Your task to perform on an android device: turn smart compose on in the gmail app Image 0: 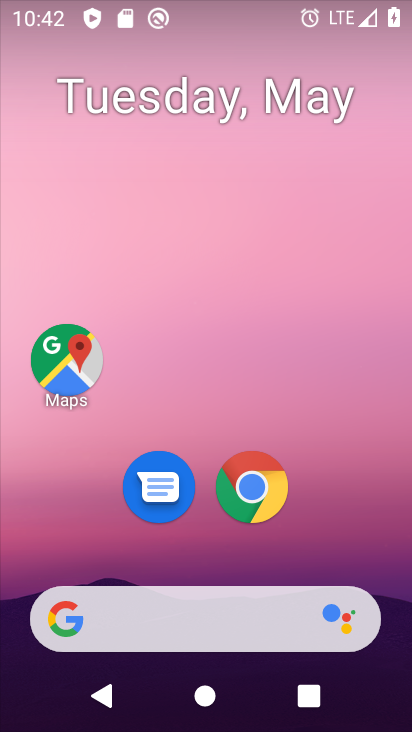
Step 0: drag from (215, 570) to (272, 324)
Your task to perform on an android device: turn smart compose on in the gmail app Image 1: 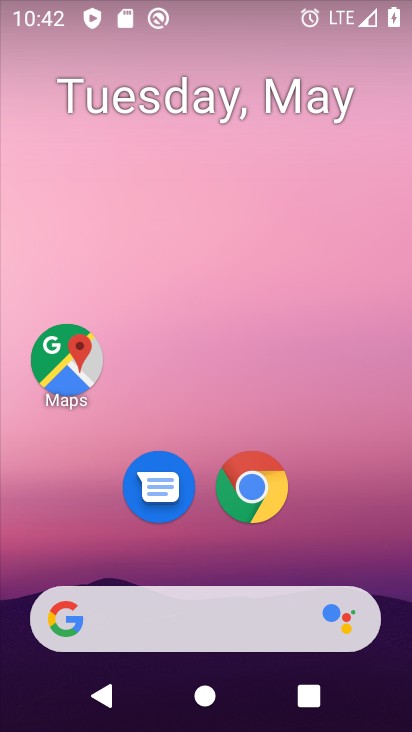
Step 1: drag from (223, 546) to (313, 160)
Your task to perform on an android device: turn smart compose on in the gmail app Image 2: 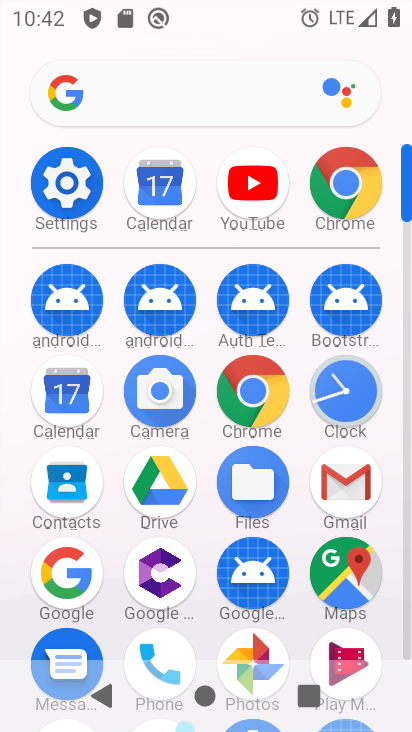
Step 2: click (320, 480)
Your task to perform on an android device: turn smart compose on in the gmail app Image 3: 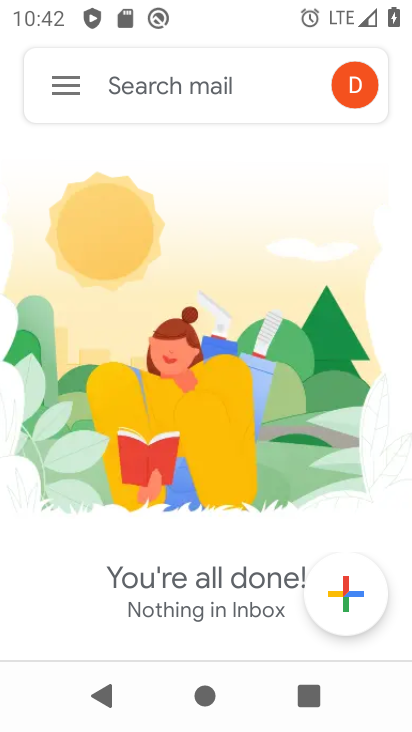
Step 3: click (62, 82)
Your task to perform on an android device: turn smart compose on in the gmail app Image 4: 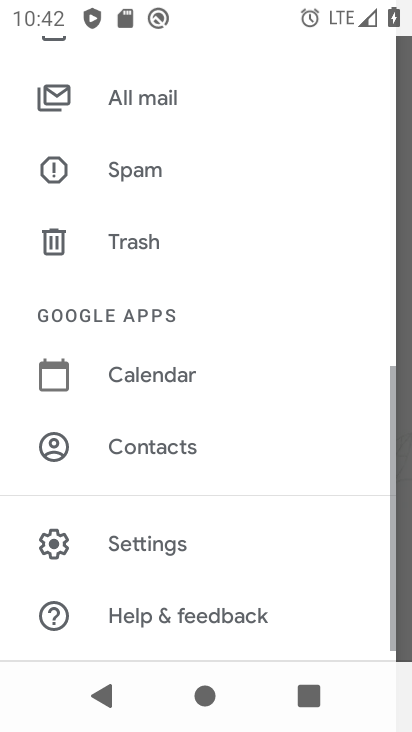
Step 4: drag from (127, 594) to (269, 66)
Your task to perform on an android device: turn smart compose on in the gmail app Image 5: 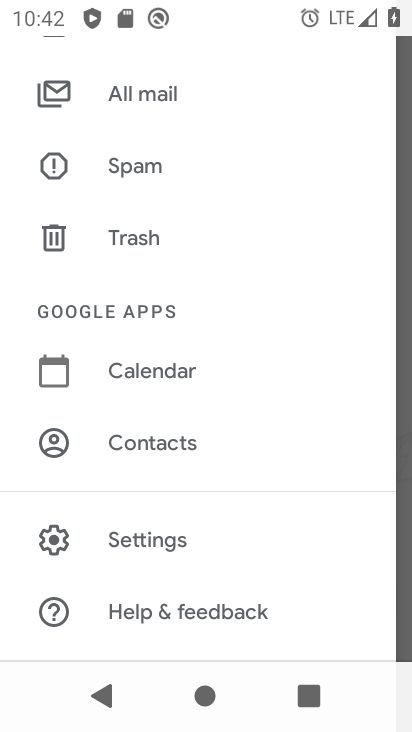
Step 5: click (163, 540)
Your task to perform on an android device: turn smart compose on in the gmail app Image 6: 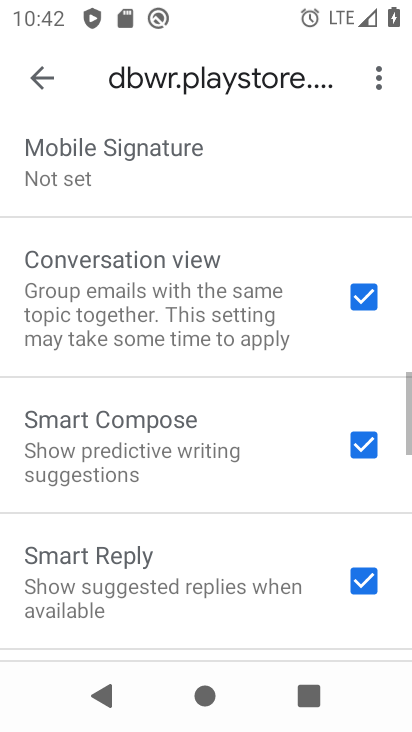
Step 6: task complete